Your task to perform on an android device: Turn off the flashlight Image 0: 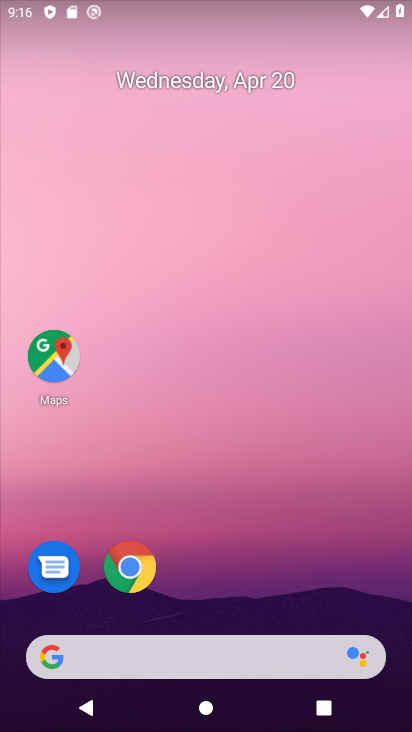
Step 0: drag from (259, 613) to (314, 224)
Your task to perform on an android device: Turn off the flashlight Image 1: 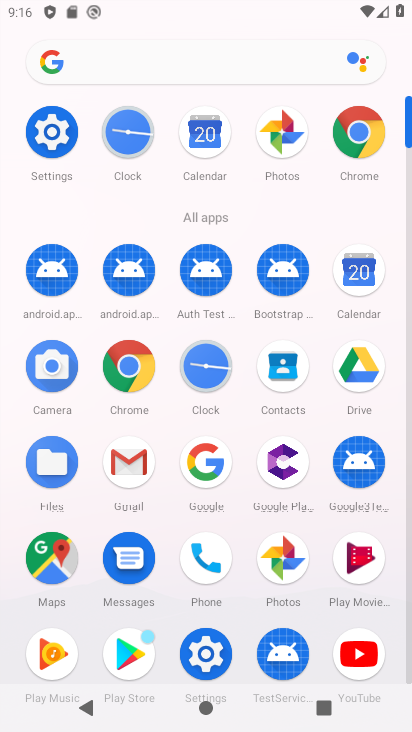
Step 1: click (54, 127)
Your task to perform on an android device: Turn off the flashlight Image 2: 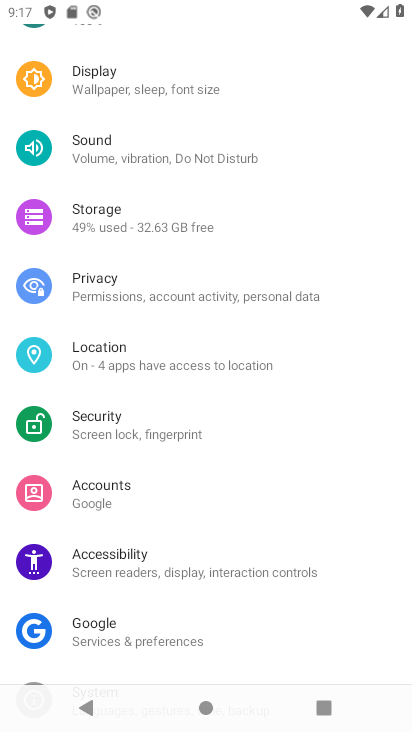
Step 2: task complete